Your task to perform on an android device: Go to internet settings Image 0: 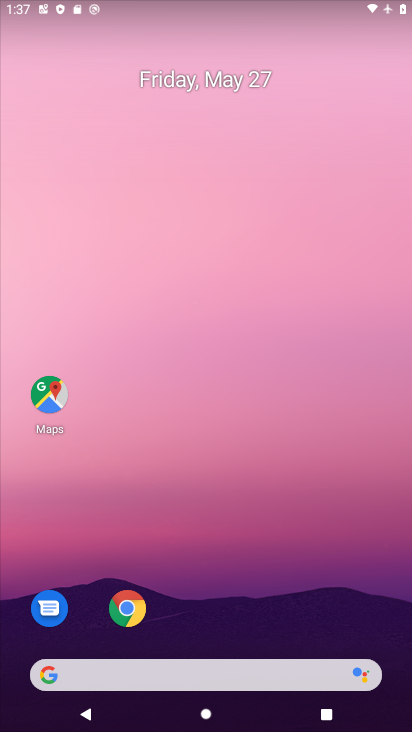
Step 0: press home button
Your task to perform on an android device: Go to internet settings Image 1: 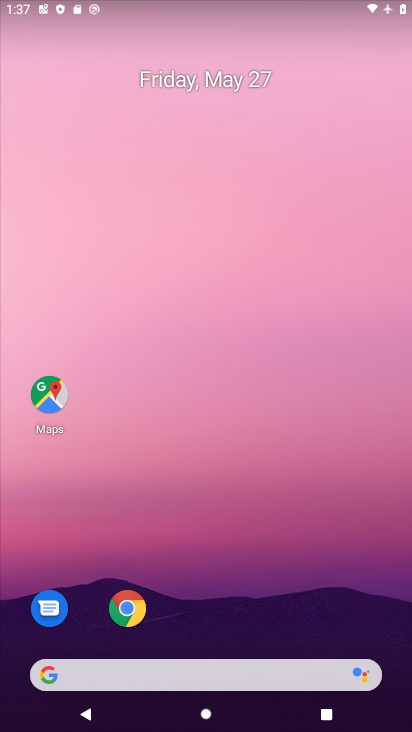
Step 1: drag from (124, 678) to (242, 212)
Your task to perform on an android device: Go to internet settings Image 2: 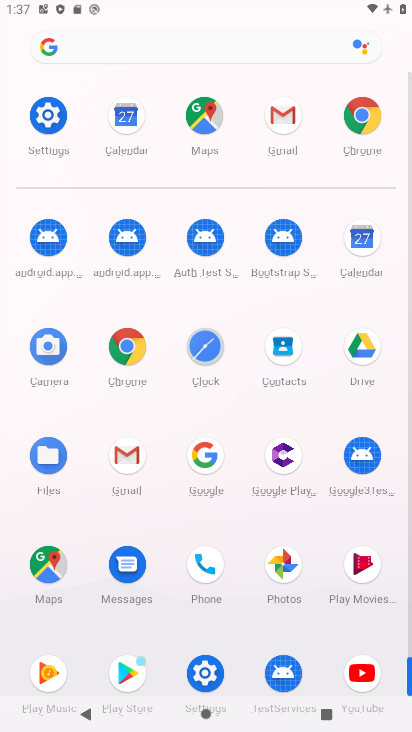
Step 2: click (39, 115)
Your task to perform on an android device: Go to internet settings Image 3: 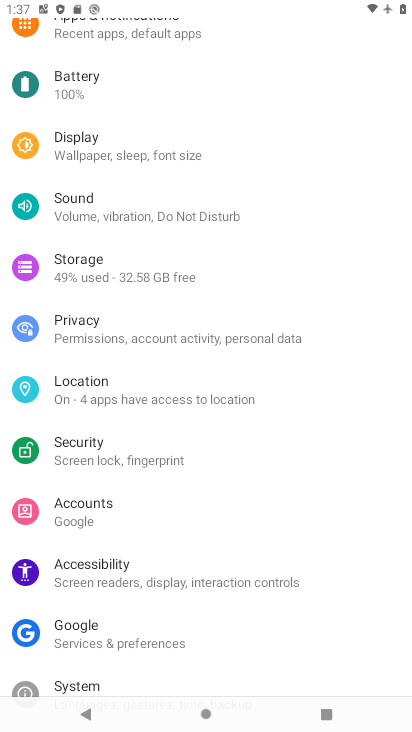
Step 3: drag from (241, 93) to (292, 653)
Your task to perform on an android device: Go to internet settings Image 4: 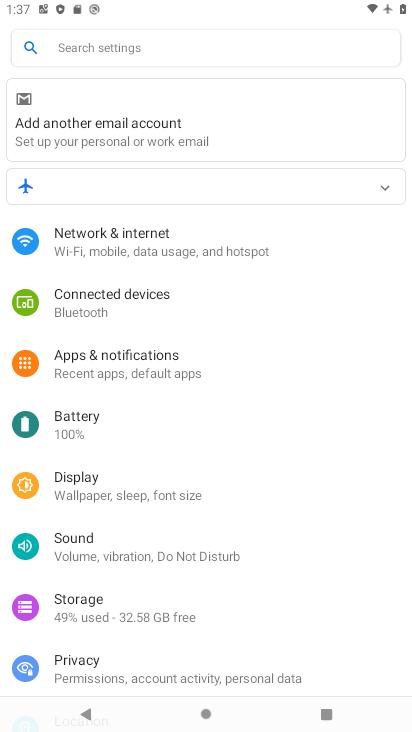
Step 4: click (122, 249)
Your task to perform on an android device: Go to internet settings Image 5: 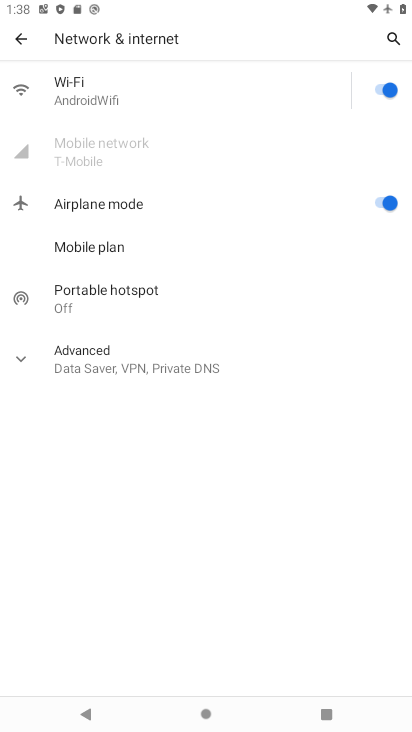
Step 5: task complete